Your task to perform on an android device: Open the web browser Image 0: 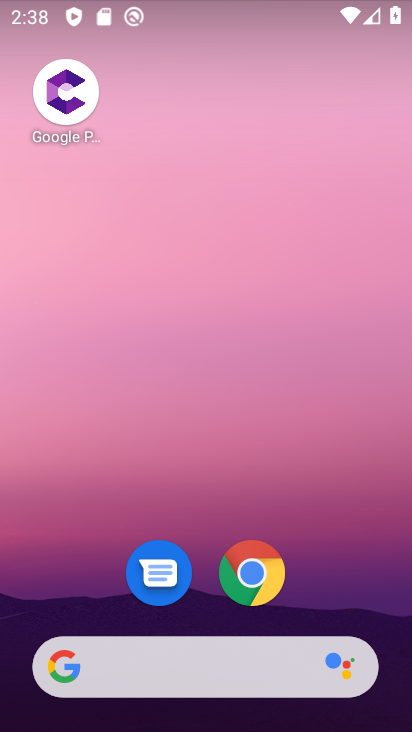
Step 0: click (248, 572)
Your task to perform on an android device: Open the web browser Image 1: 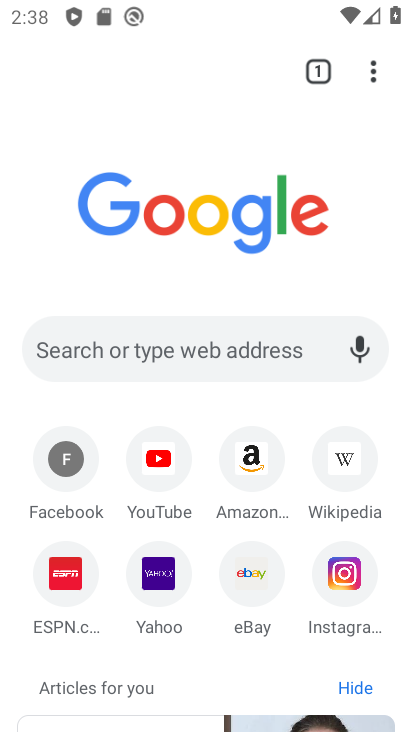
Step 1: task complete